Your task to perform on an android device: What's the weather? Image 0: 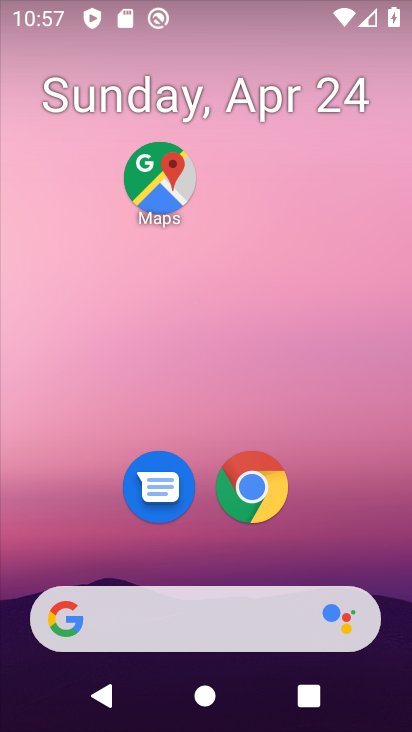
Step 0: click (188, 611)
Your task to perform on an android device: What's the weather? Image 1: 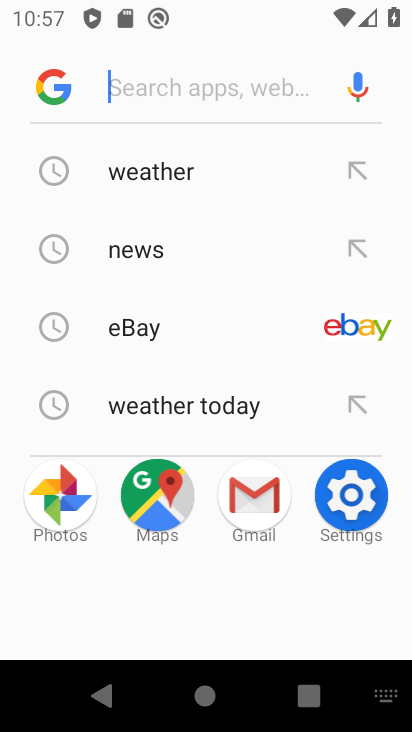
Step 1: click (354, 176)
Your task to perform on an android device: What's the weather? Image 2: 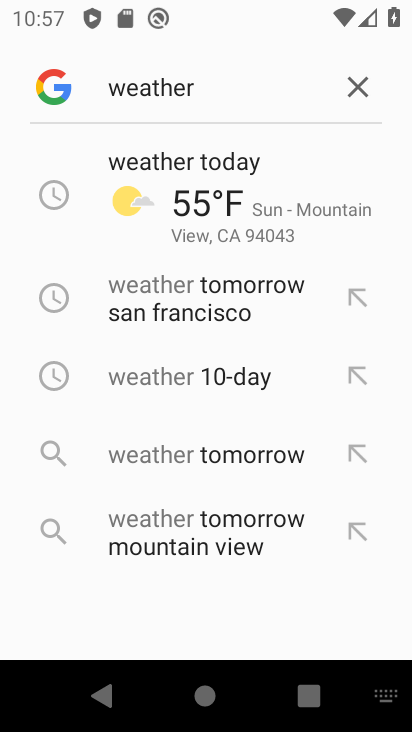
Step 2: task complete